Your task to perform on an android device: Open internet settings Image 0: 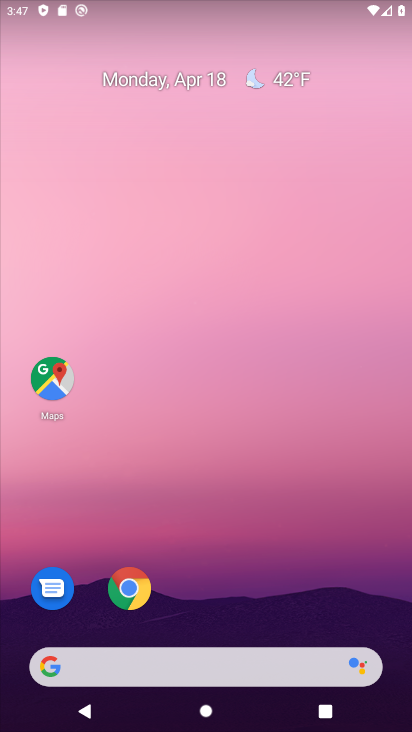
Step 0: drag from (222, 639) to (190, 35)
Your task to perform on an android device: Open internet settings Image 1: 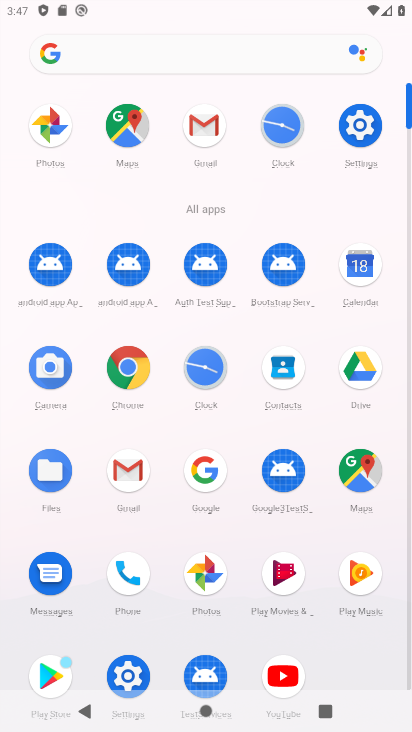
Step 1: click (356, 138)
Your task to perform on an android device: Open internet settings Image 2: 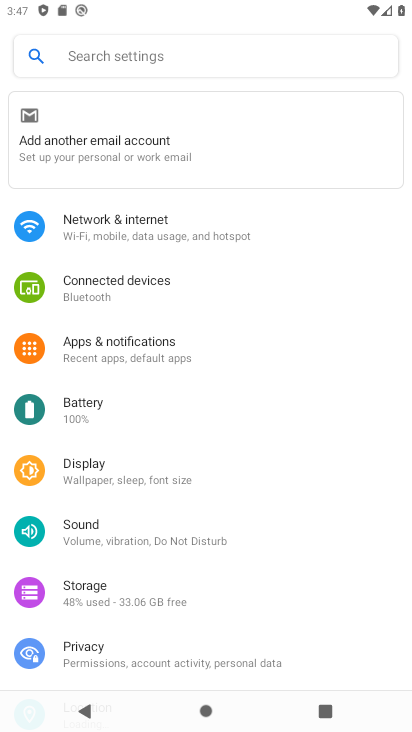
Step 2: drag from (145, 119) to (127, 1)
Your task to perform on an android device: Open internet settings Image 3: 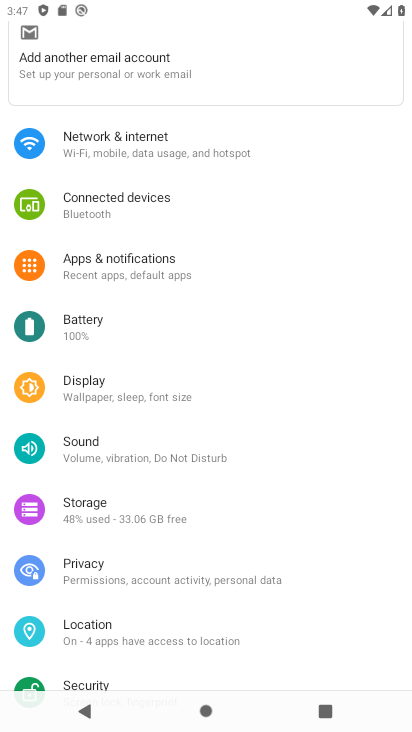
Step 3: click (129, 134)
Your task to perform on an android device: Open internet settings Image 4: 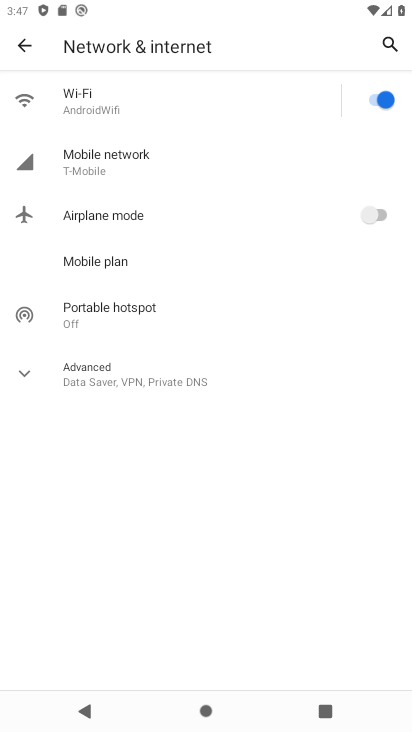
Step 4: click (100, 170)
Your task to perform on an android device: Open internet settings Image 5: 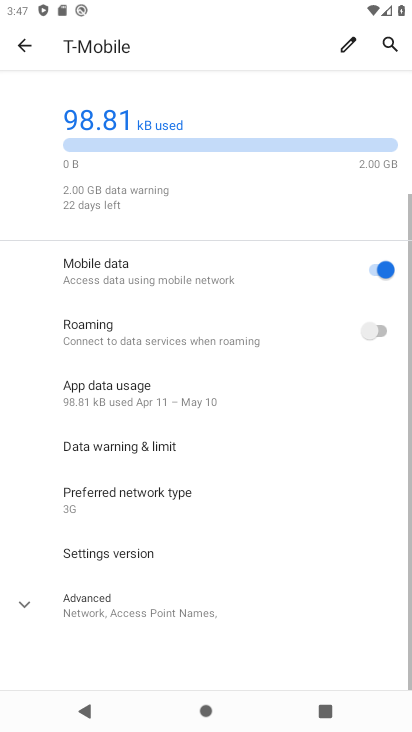
Step 5: click (23, 49)
Your task to perform on an android device: Open internet settings Image 6: 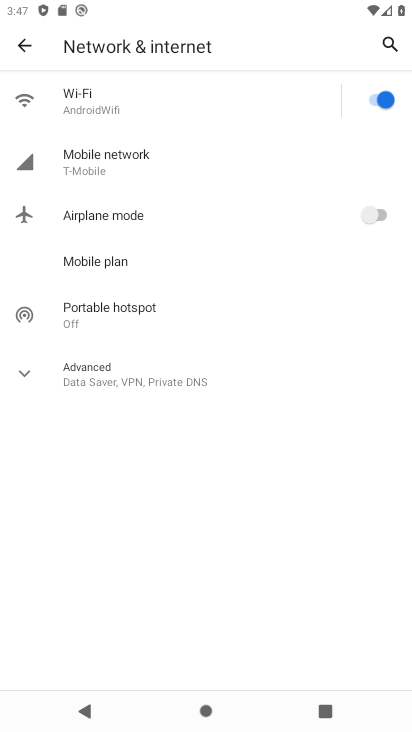
Step 6: task complete